Your task to perform on an android device: Search for a new highlighter Image 0: 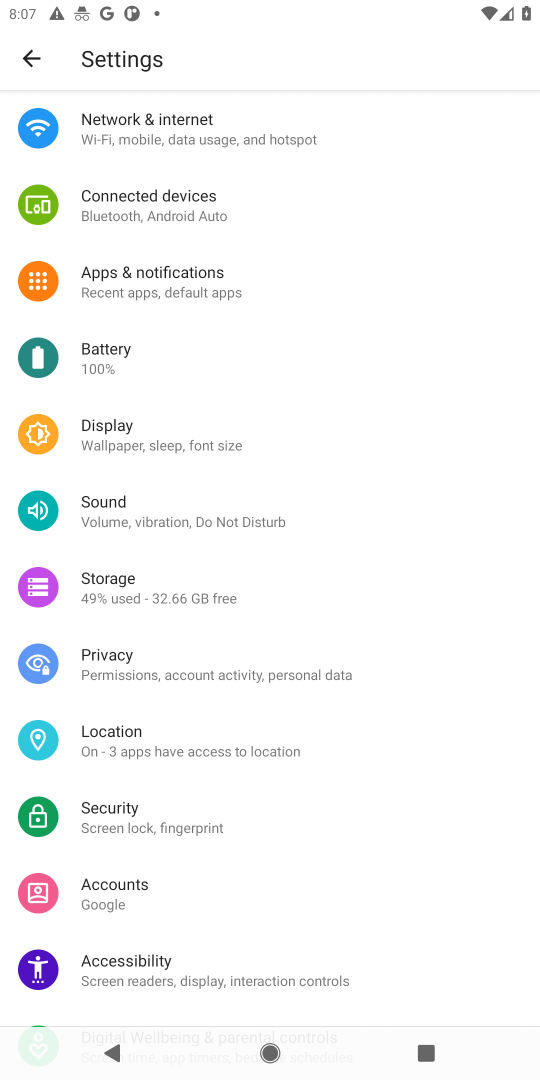
Step 0: press home button
Your task to perform on an android device: Search for a new highlighter Image 1: 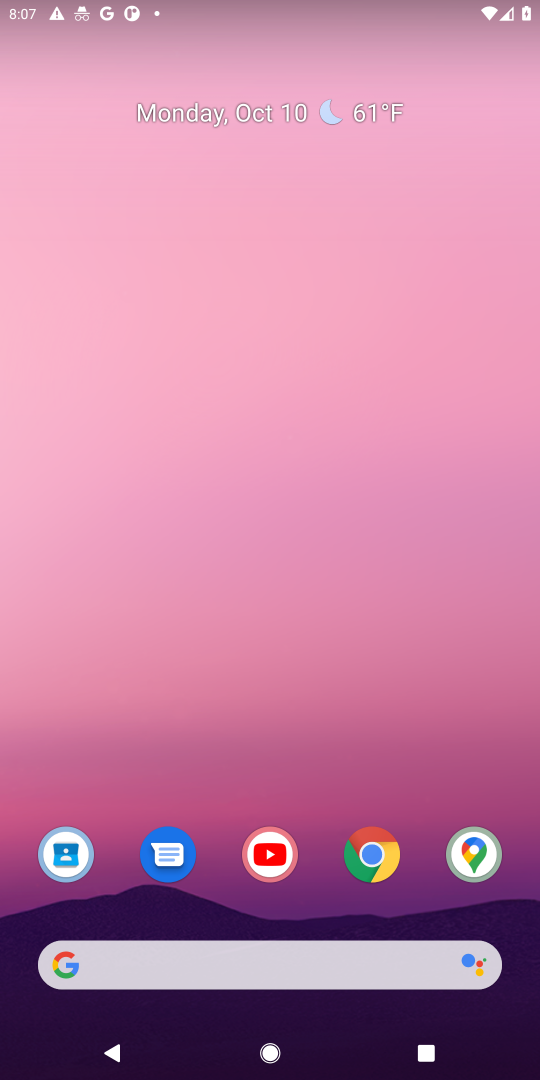
Step 1: click (370, 849)
Your task to perform on an android device: Search for a new highlighter Image 2: 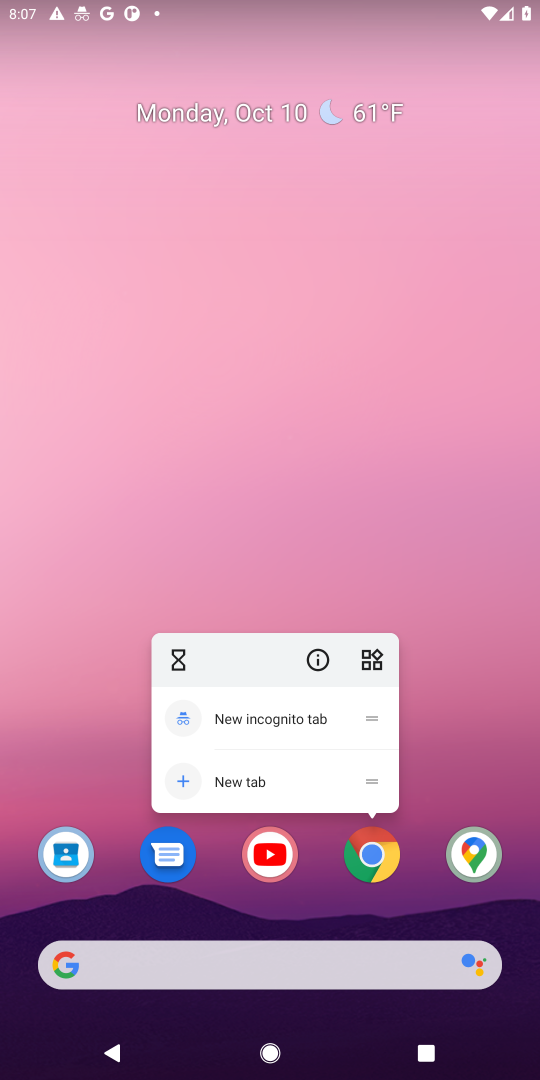
Step 2: click (370, 849)
Your task to perform on an android device: Search for a new highlighter Image 3: 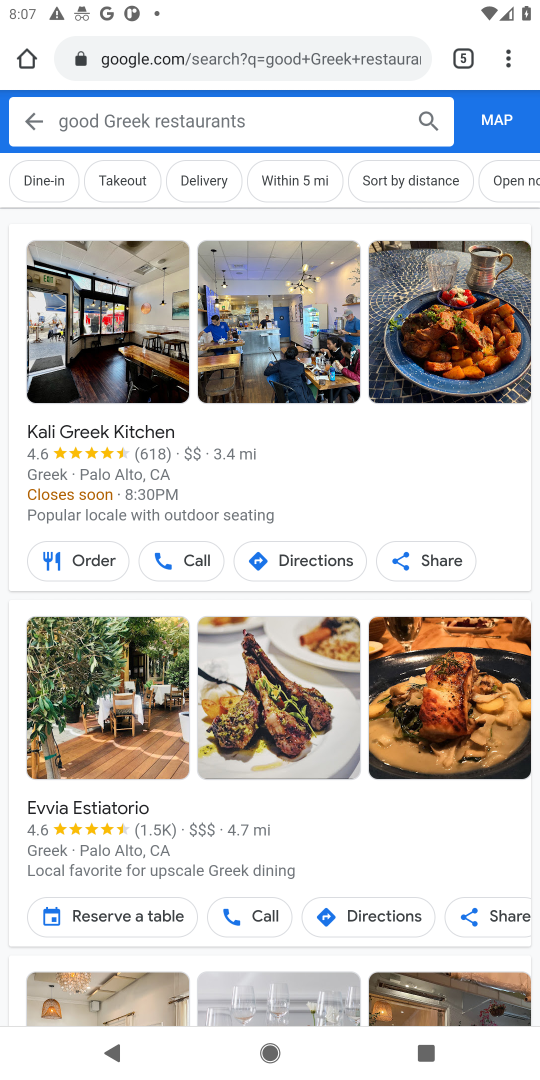
Step 3: click (360, 56)
Your task to perform on an android device: Search for a new highlighter Image 4: 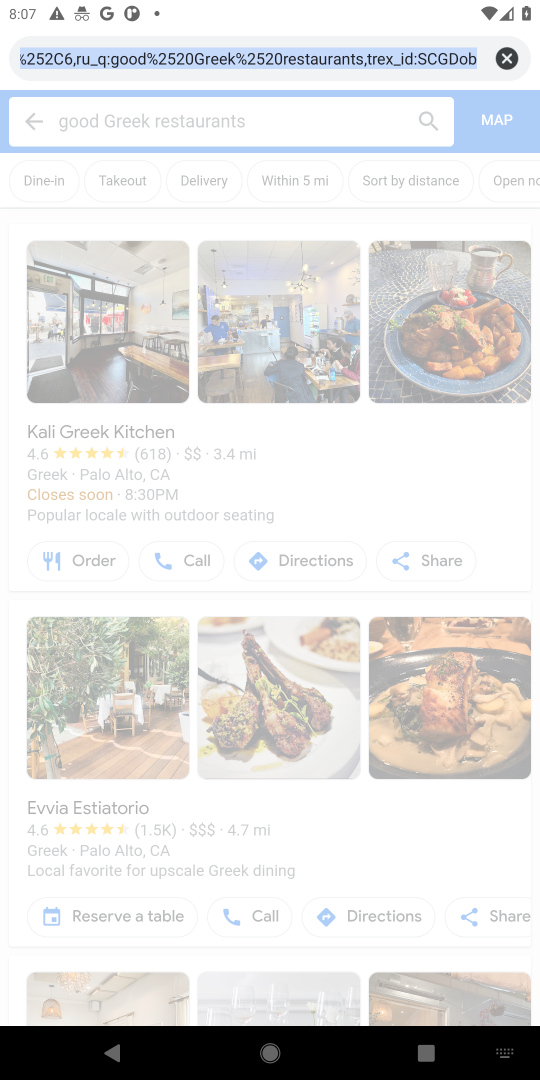
Step 4: click (505, 55)
Your task to perform on an android device: Search for a new highlighter Image 5: 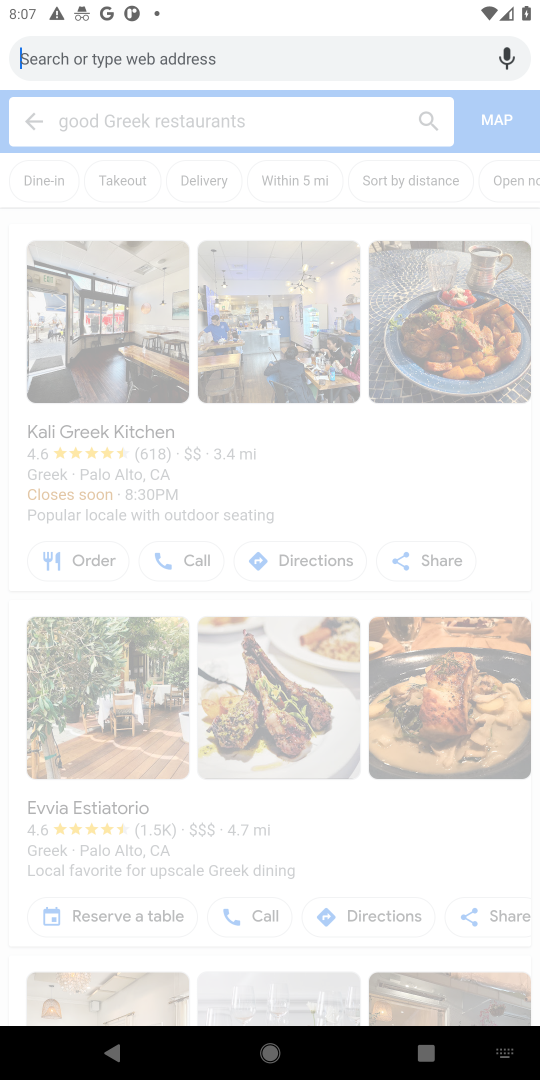
Step 5: type " new highlighter"
Your task to perform on an android device: Search for a new highlighter Image 6: 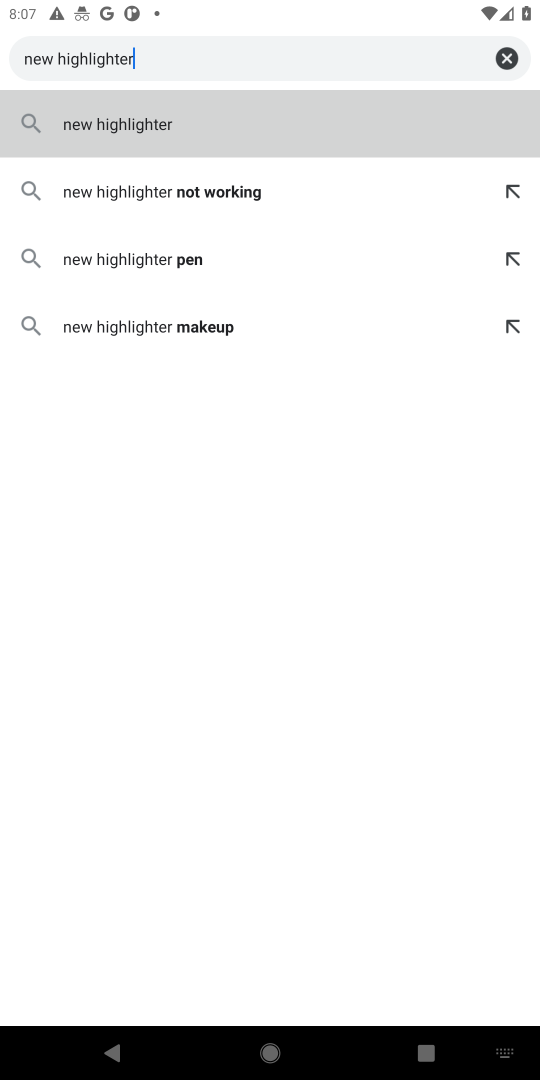
Step 6: click (161, 138)
Your task to perform on an android device: Search for a new highlighter Image 7: 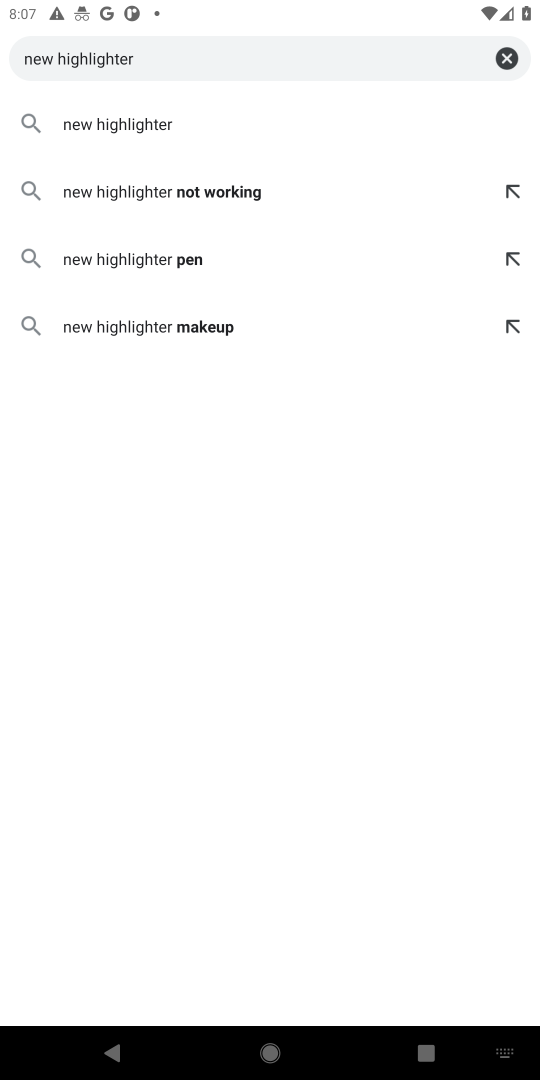
Step 7: click (135, 122)
Your task to perform on an android device: Search for a new highlighter Image 8: 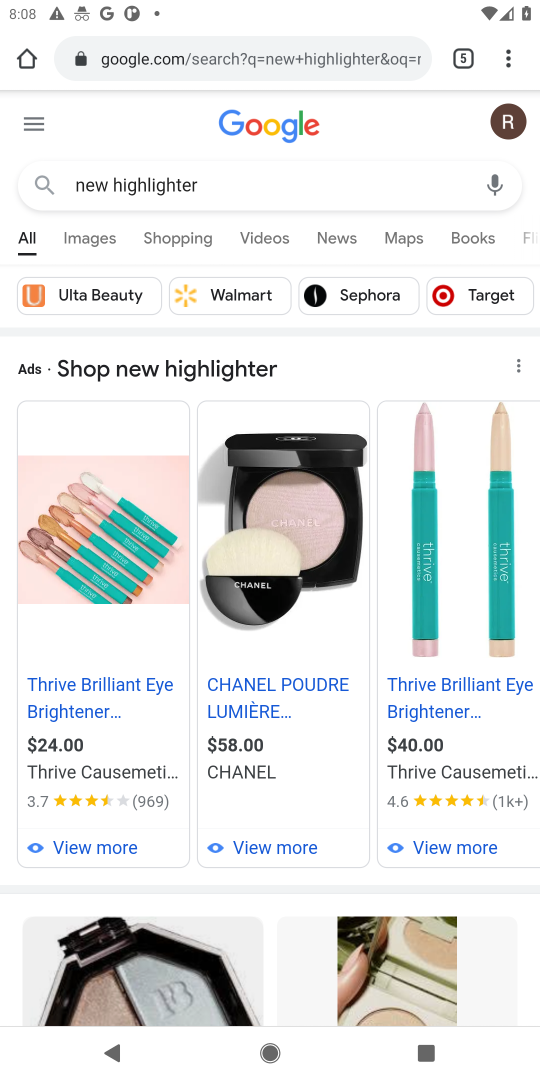
Step 8: task complete